Your task to perform on an android device: turn off wifi Image 0: 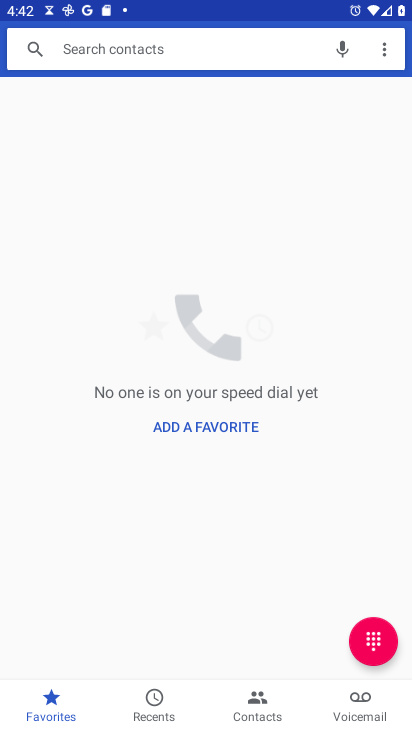
Step 0: press home button
Your task to perform on an android device: turn off wifi Image 1: 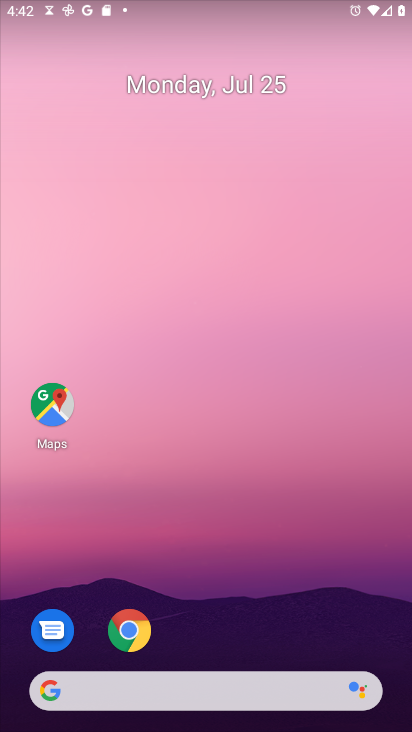
Step 1: drag from (192, 698) to (261, 89)
Your task to perform on an android device: turn off wifi Image 2: 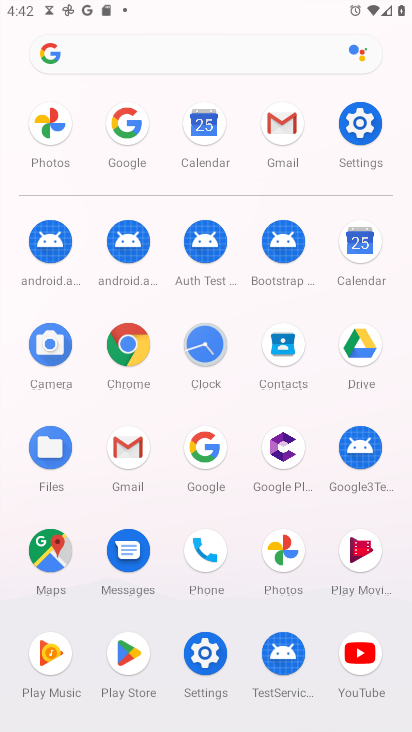
Step 2: click (361, 120)
Your task to perform on an android device: turn off wifi Image 3: 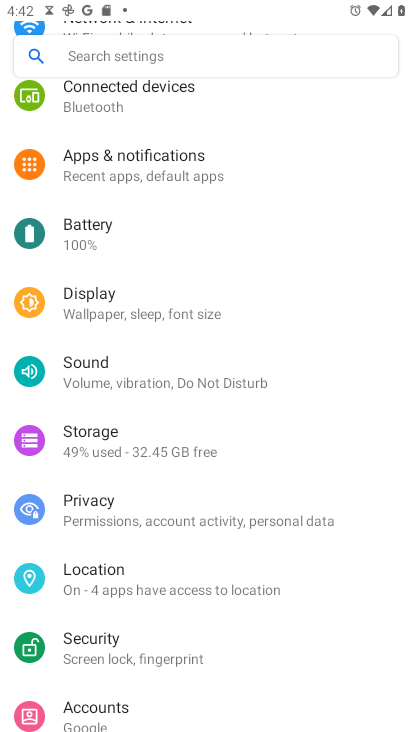
Step 3: drag from (116, 537) to (113, 329)
Your task to perform on an android device: turn off wifi Image 4: 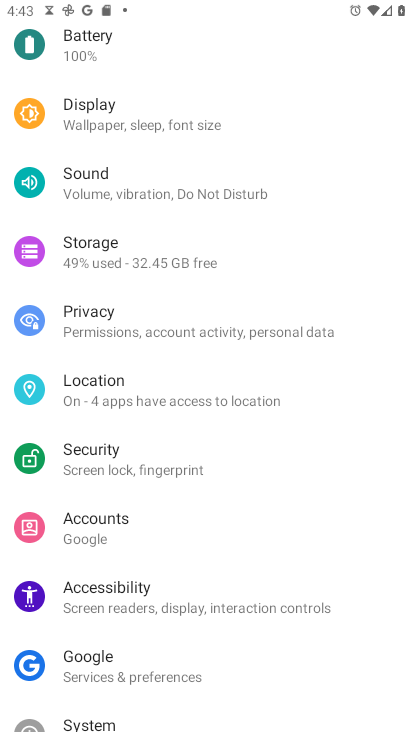
Step 4: drag from (112, 556) to (121, 466)
Your task to perform on an android device: turn off wifi Image 5: 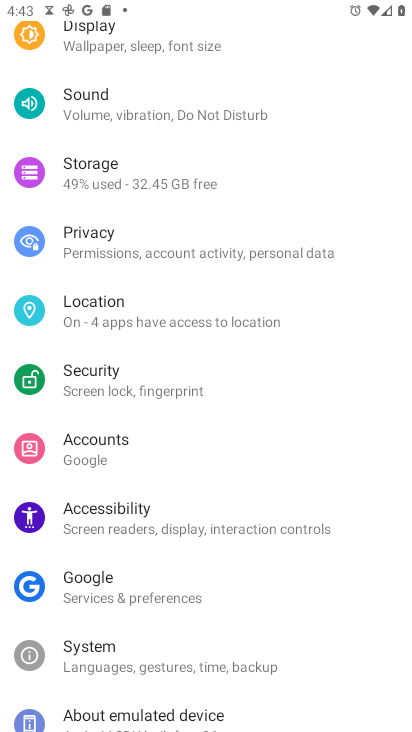
Step 5: drag from (208, 307) to (222, 503)
Your task to perform on an android device: turn off wifi Image 6: 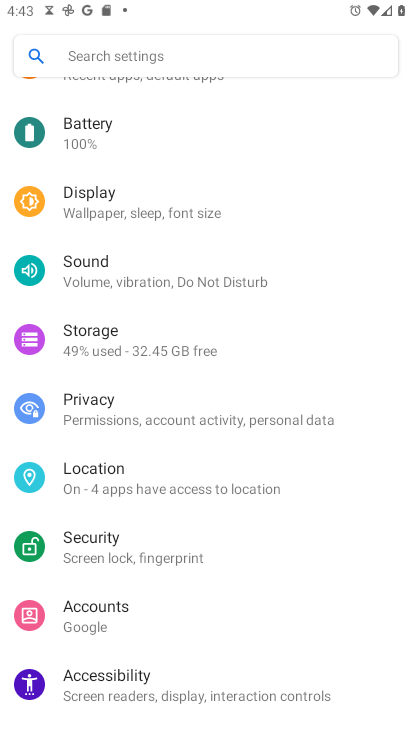
Step 6: drag from (209, 183) to (236, 387)
Your task to perform on an android device: turn off wifi Image 7: 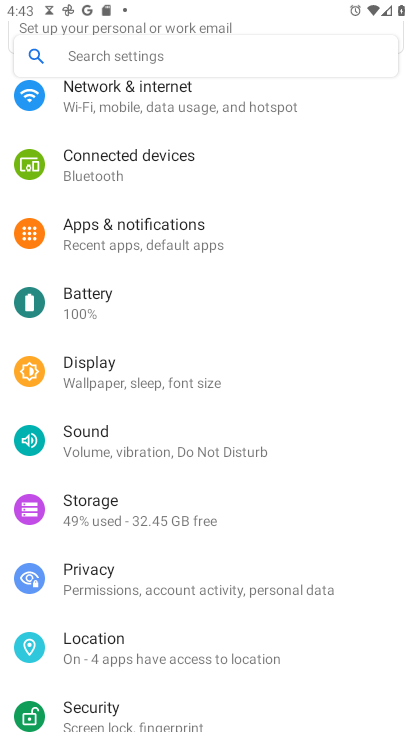
Step 7: drag from (226, 187) to (214, 399)
Your task to perform on an android device: turn off wifi Image 8: 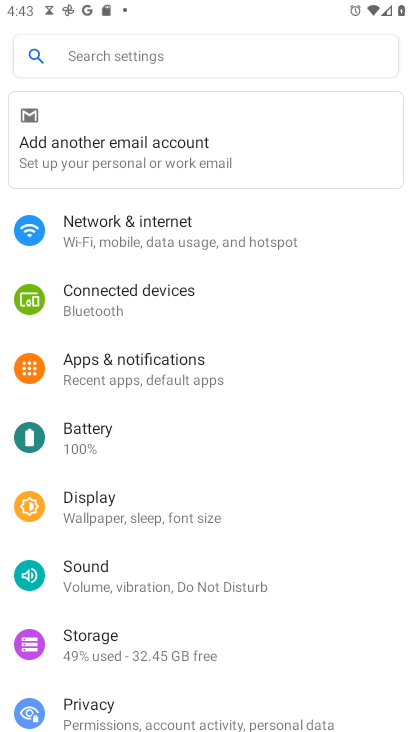
Step 8: click (124, 245)
Your task to perform on an android device: turn off wifi Image 9: 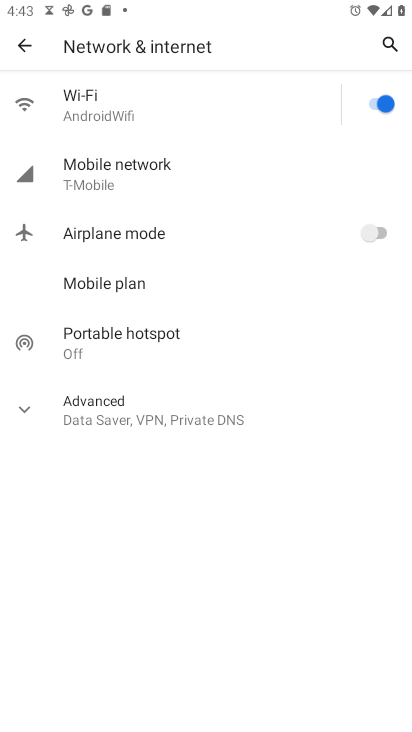
Step 9: click (382, 101)
Your task to perform on an android device: turn off wifi Image 10: 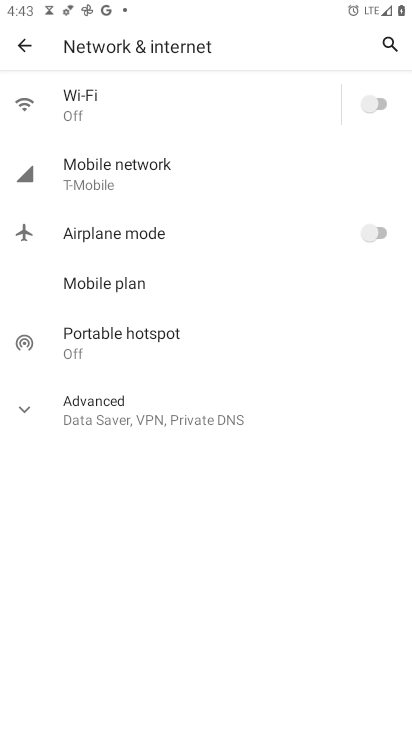
Step 10: task complete